Your task to perform on an android device: check storage Image 0: 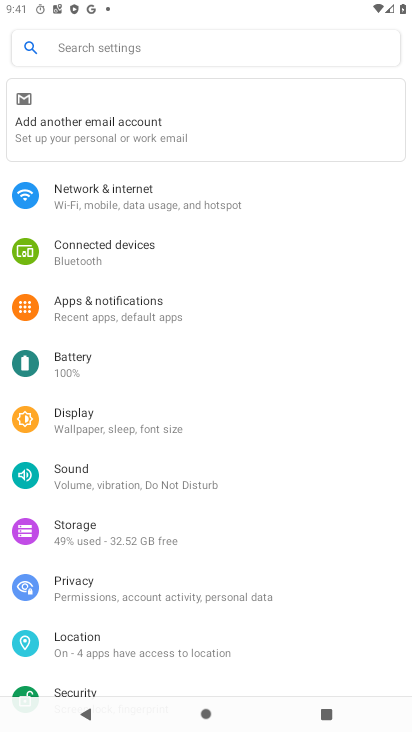
Step 0: press home button
Your task to perform on an android device: check storage Image 1: 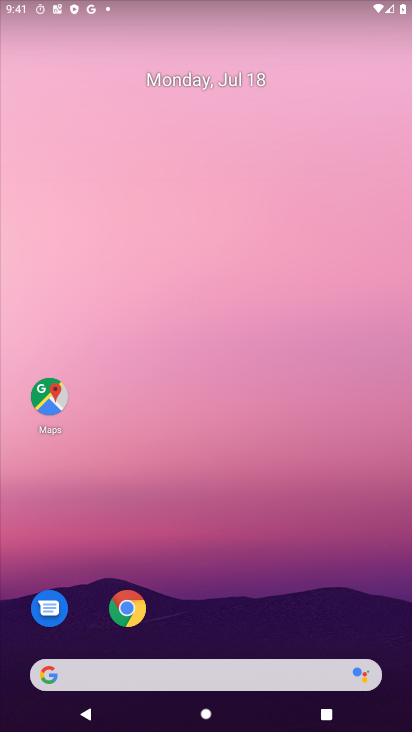
Step 1: drag from (180, 218) to (180, 161)
Your task to perform on an android device: check storage Image 2: 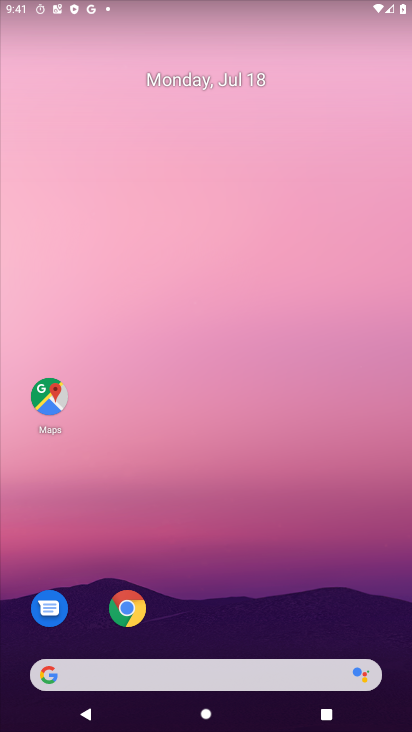
Step 2: drag from (181, 549) to (181, 246)
Your task to perform on an android device: check storage Image 3: 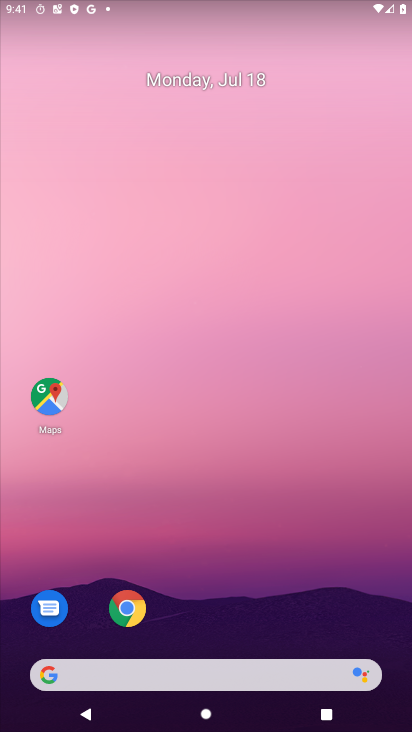
Step 3: drag from (206, 590) to (208, 229)
Your task to perform on an android device: check storage Image 4: 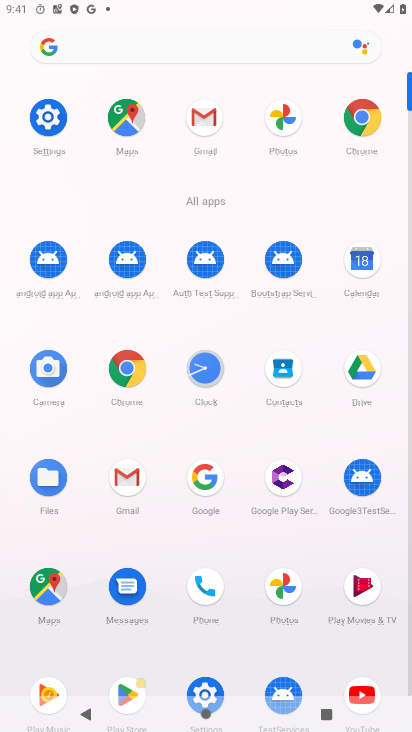
Step 4: click (39, 112)
Your task to perform on an android device: check storage Image 5: 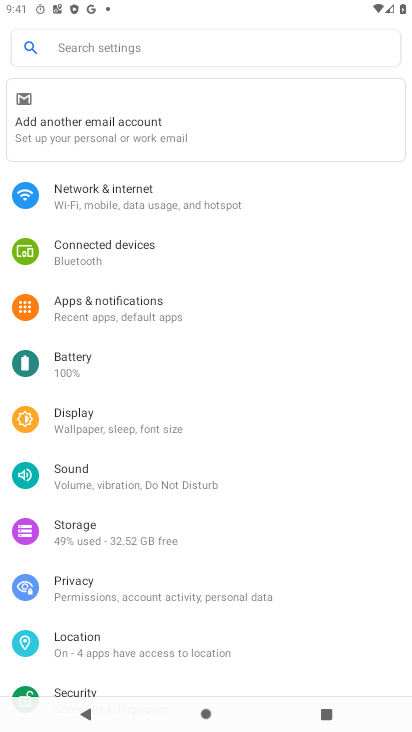
Step 5: click (88, 528)
Your task to perform on an android device: check storage Image 6: 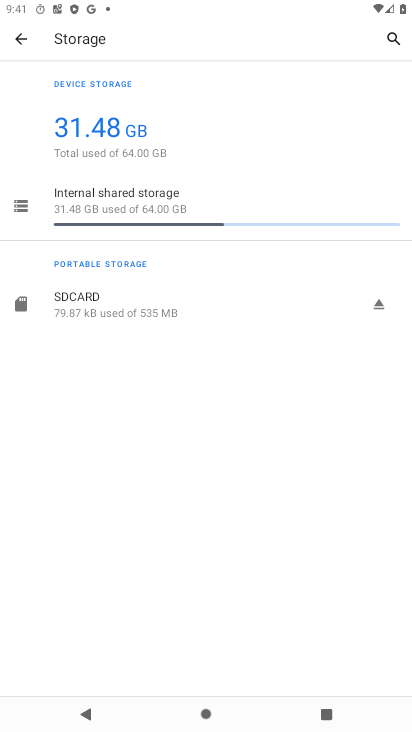
Step 6: task complete